Your task to perform on an android device: Open Amazon Image 0: 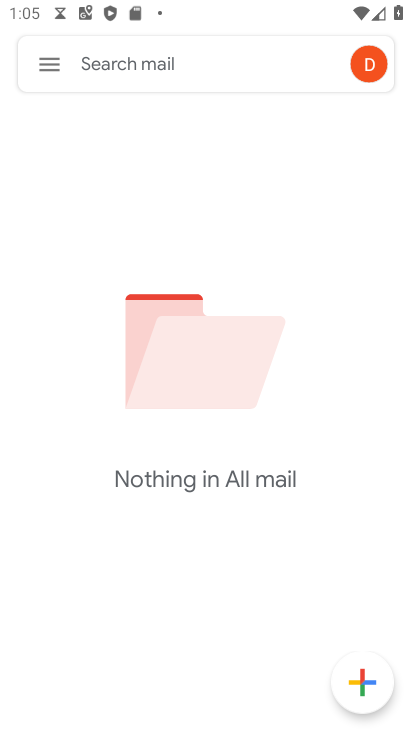
Step 0: press home button
Your task to perform on an android device: Open Amazon Image 1: 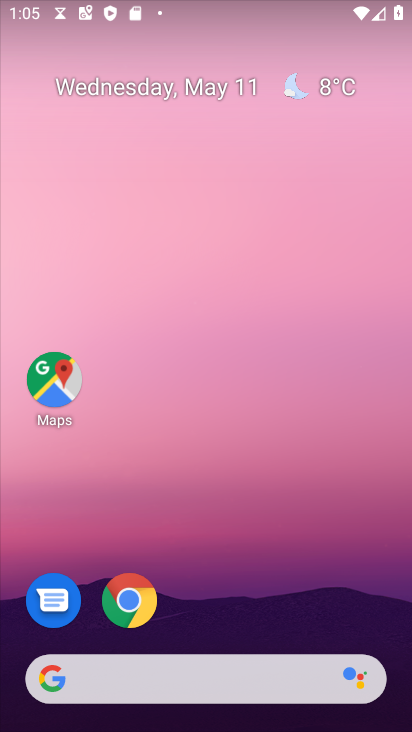
Step 1: click (144, 596)
Your task to perform on an android device: Open Amazon Image 2: 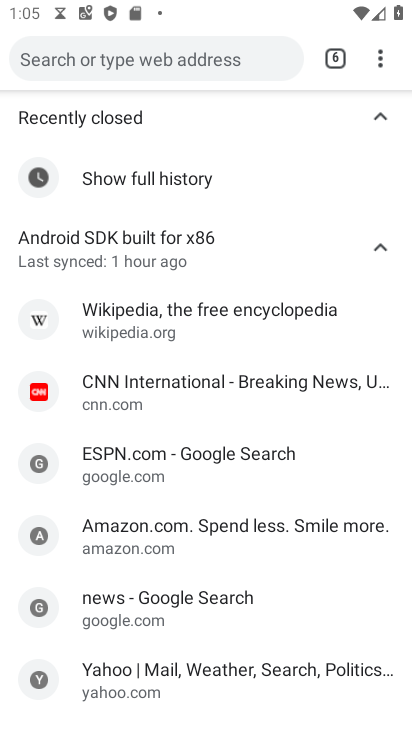
Step 2: click (335, 56)
Your task to perform on an android device: Open Amazon Image 3: 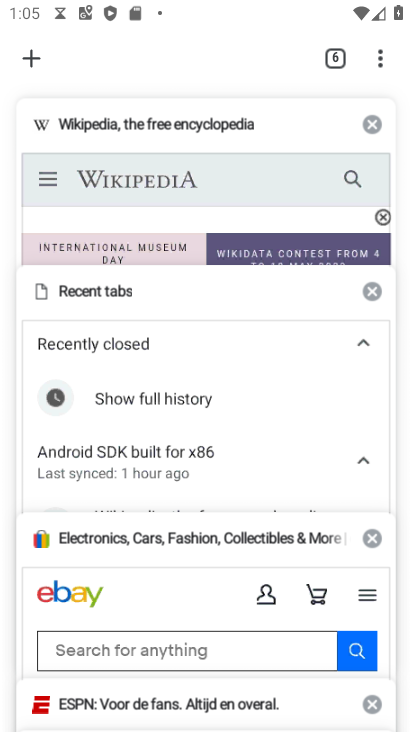
Step 3: drag from (181, 394) to (198, 166)
Your task to perform on an android device: Open Amazon Image 4: 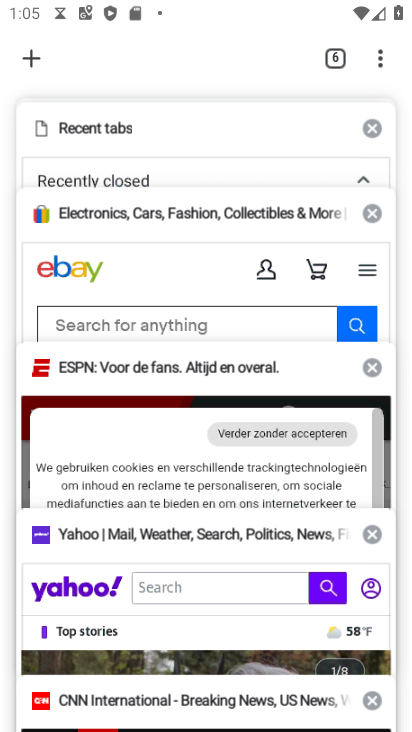
Step 4: drag from (190, 542) to (222, 243)
Your task to perform on an android device: Open Amazon Image 5: 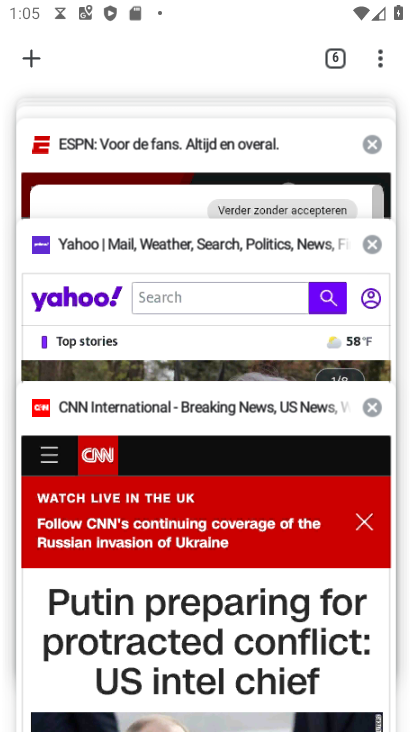
Step 5: click (26, 59)
Your task to perform on an android device: Open Amazon Image 6: 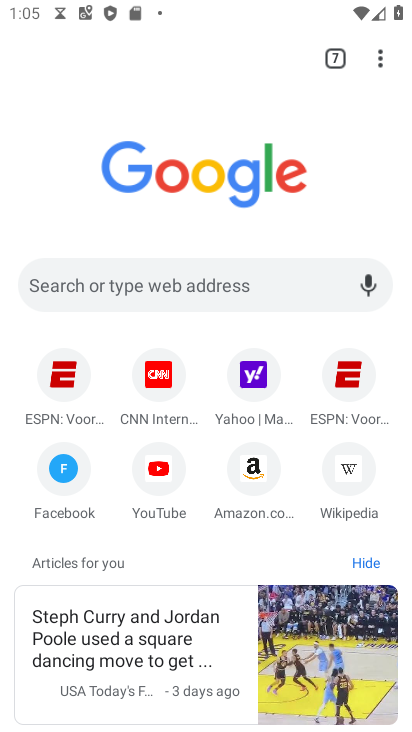
Step 6: click (249, 466)
Your task to perform on an android device: Open Amazon Image 7: 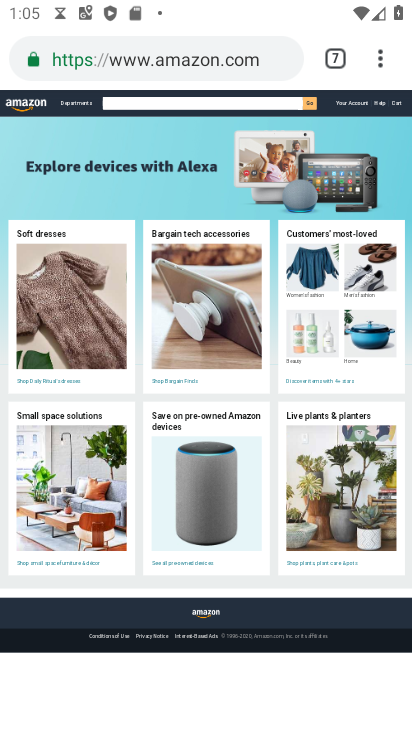
Step 7: task complete